Your task to perform on an android device: check the backup settings in the google photos Image 0: 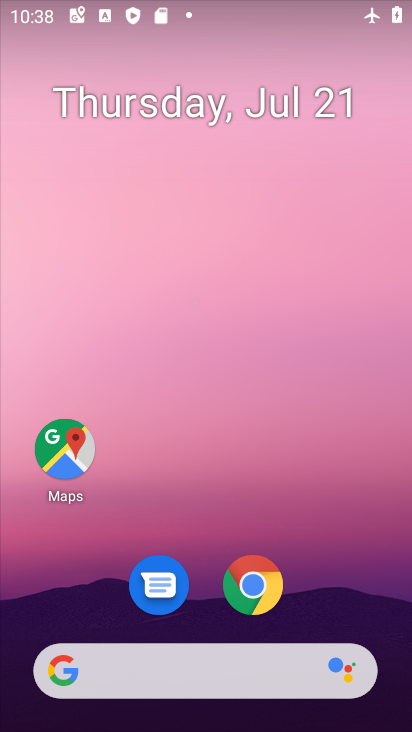
Step 0: drag from (324, 488) to (327, 60)
Your task to perform on an android device: check the backup settings in the google photos Image 1: 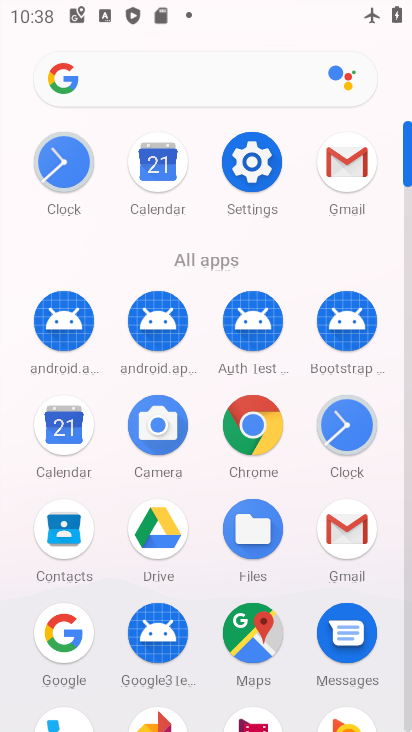
Step 1: drag from (198, 577) to (211, 96)
Your task to perform on an android device: check the backup settings in the google photos Image 2: 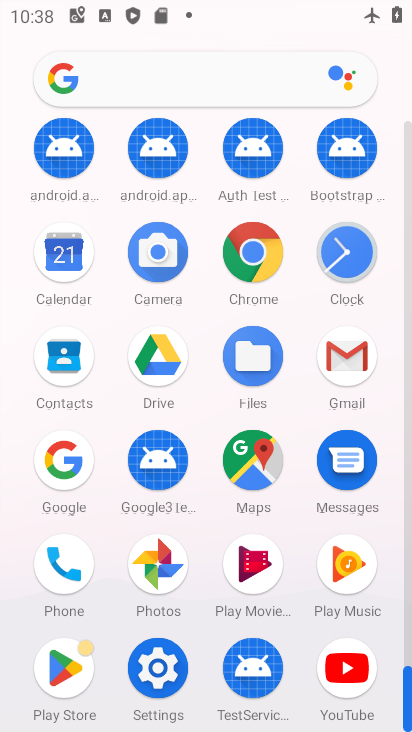
Step 2: click (165, 561)
Your task to perform on an android device: check the backup settings in the google photos Image 3: 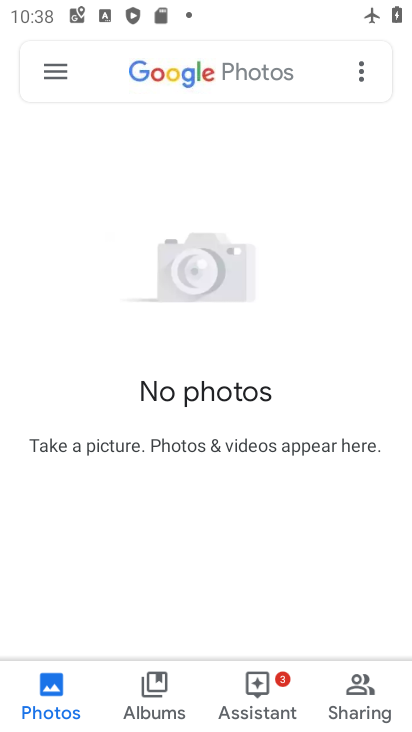
Step 3: click (54, 64)
Your task to perform on an android device: check the backup settings in the google photos Image 4: 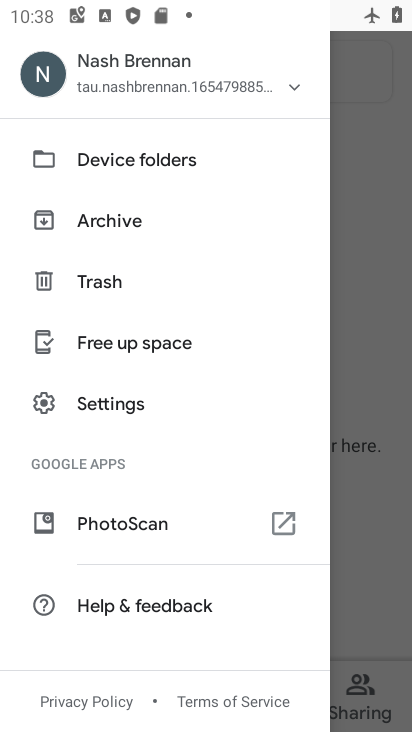
Step 4: click (121, 403)
Your task to perform on an android device: check the backup settings in the google photos Image 5: 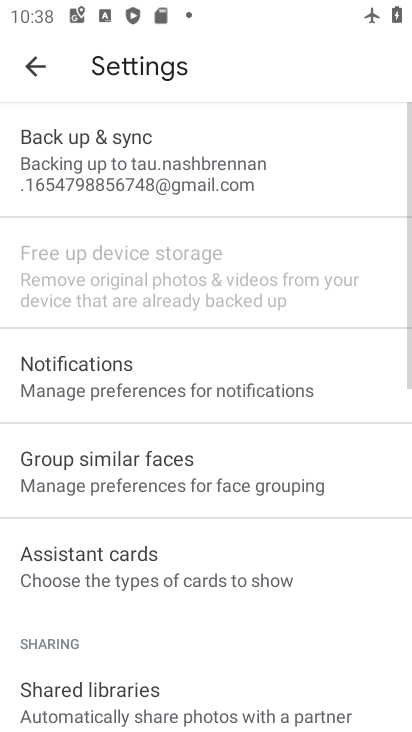
Step 5: click (124, 160)
Your task to perform on an android device: check the backup settings in the google photos Image 6: 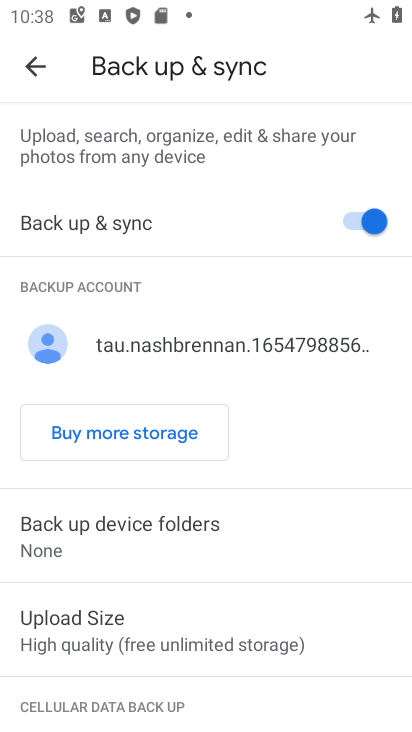
Step 6: task complete